Your task to perform on an android device: turn off smart reply in the gmail app Image 0: 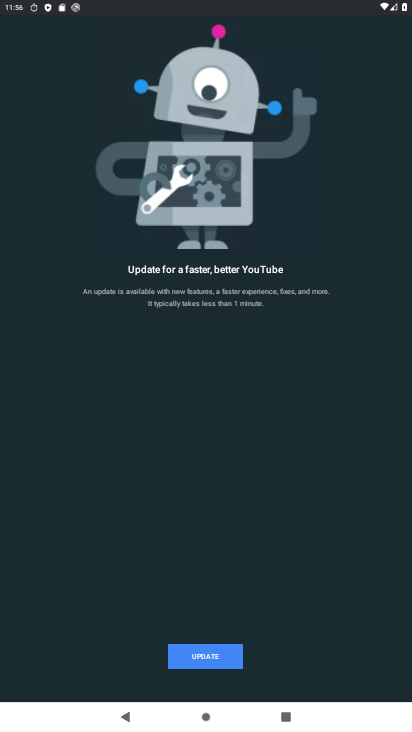
Step 0: press home button
Your task to perform on an android device: turn off smart reply in the gmail app Image 1: 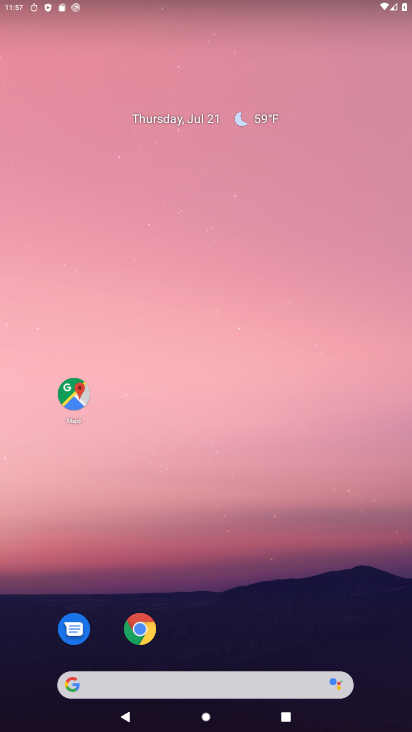
Step 1: drag from (228, 668) to (232, 126)
Your task to perform on an android device: turn off smart reply in the gmail app Image 2: 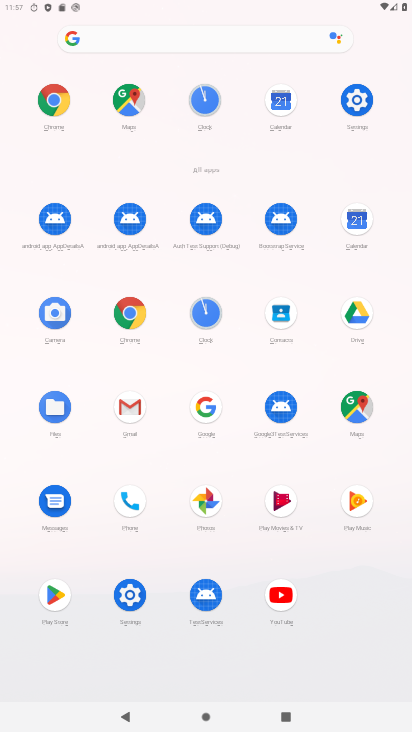
Step 2: click (121, 414)
Your task to perform on an android device: turn off smart reply in the gmail app Image 3: 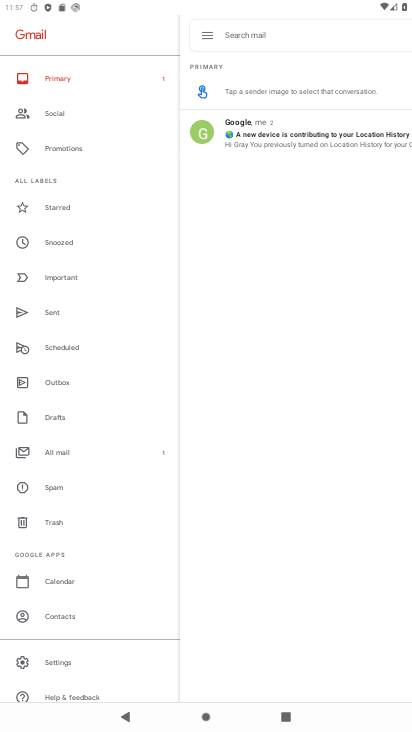
Step 3: click (56, 663)
Your task to perform on an android device: turn off smart reply in the gmail app Image 4: 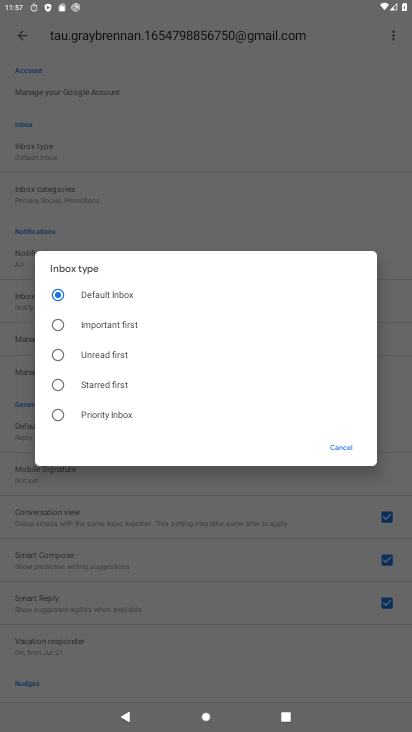
Step 4: click (200, 556)
Your task to perform on an android device: turn off smart reply in the gmail app Image 5: 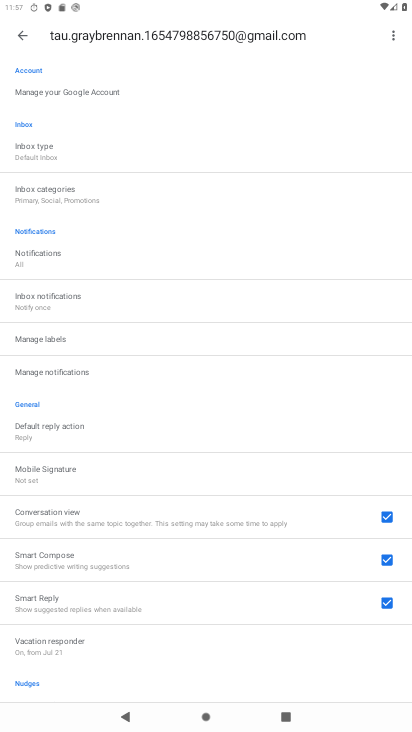
Step 5: click (384, 597)
Your task to perform on an android device: turn off smart reply in the gmail app Image 6: 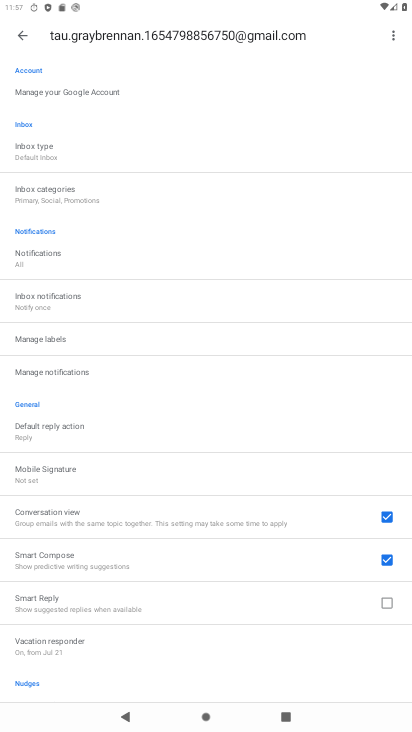
Step 6: task complete